Your task to perform on an android device: all mails in gmail Image 0: 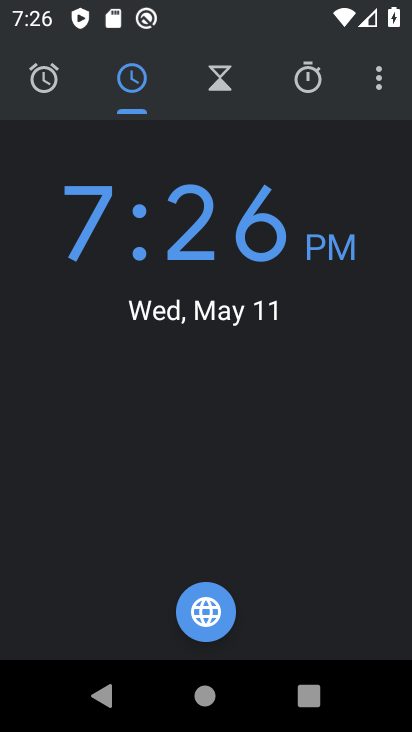
Step 0: press home button
Your task to perform on an android device: all mails in gmail Image 1: 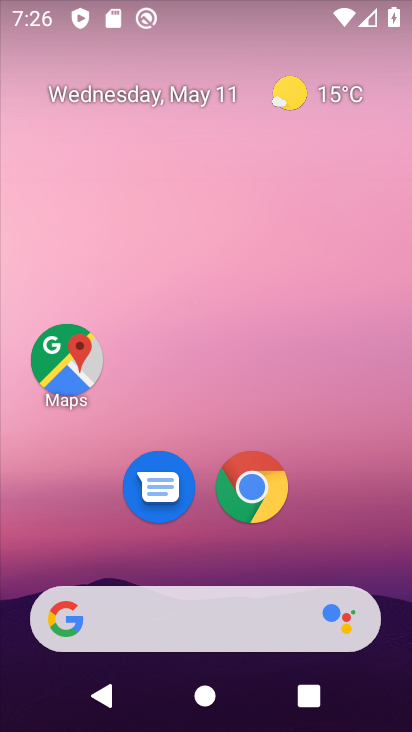
Step 1: drag from (270, 666) to (367, 117)
Your task to perform on an android device: all mails in gmail Image 2: 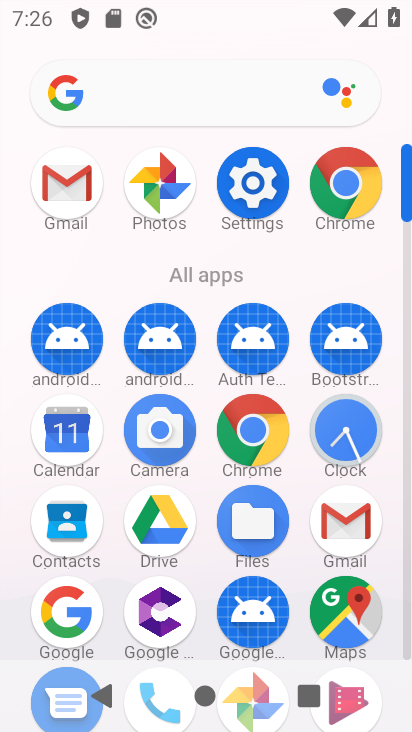
Step 2: click (39, 184)
Your task to perform on an android device: all mails in gmail Image 3: 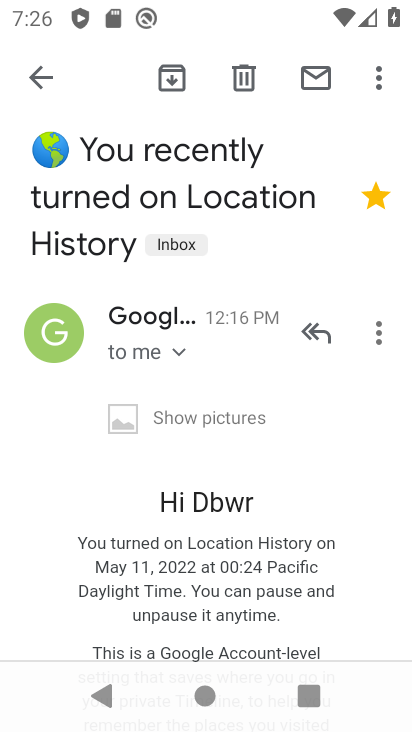
Step 3: drag from (243, 498) to (289, 265)
Your task to perform on an android device: all mails in gmail Image 4: 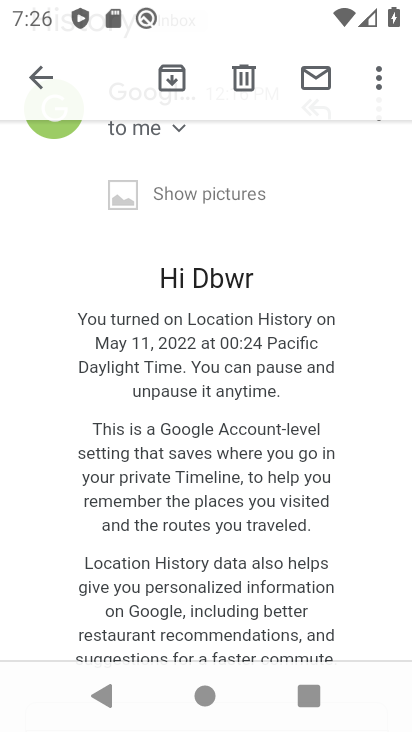
Step 4: drag from (215, 248) to (246, 415)
Your task to perform on an android device: all mails in gmail Image 5: 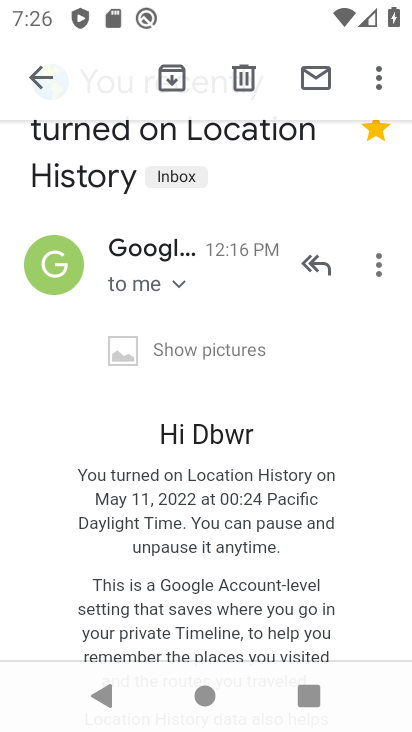
Step 5: click (40, 82)
Your task to perform on an android device: all mails in gmail Image 6: 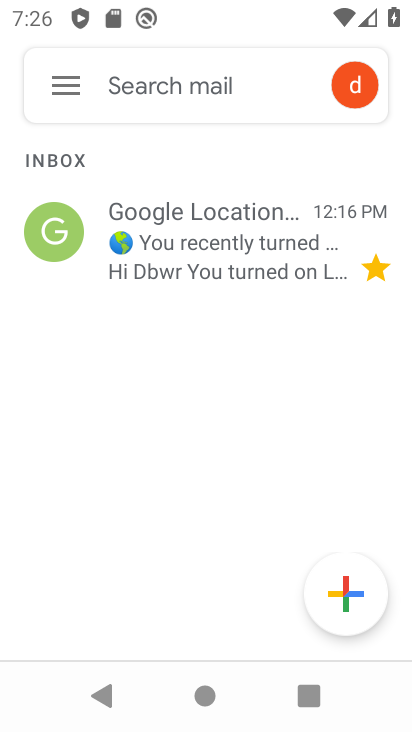
Step 6: click (55, 74)
Your task to perform on an android device: all mails in gmail Image 7: 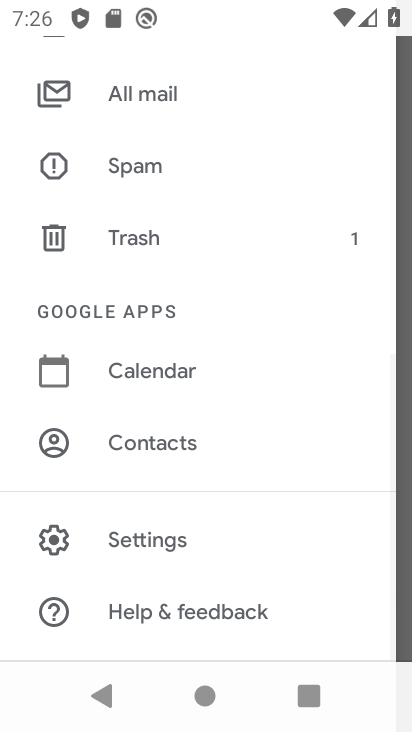
Step 7: click (167, 539)
Your task to perform on an android device: all mails in gmail Image 8: 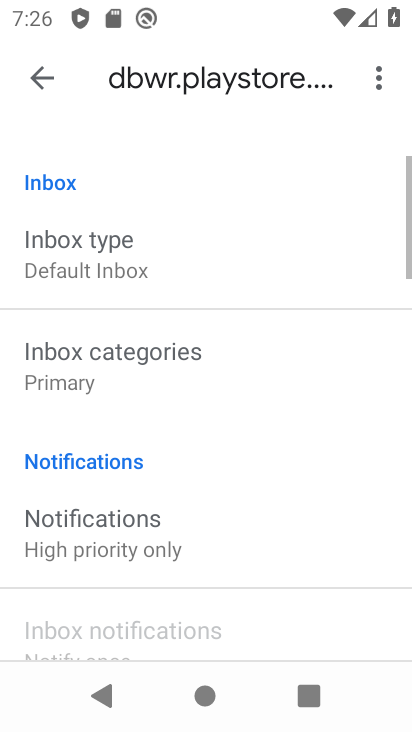
Step 8: click (38, 86)
Your task to perform on an android device: all mails in gmail Image 9: 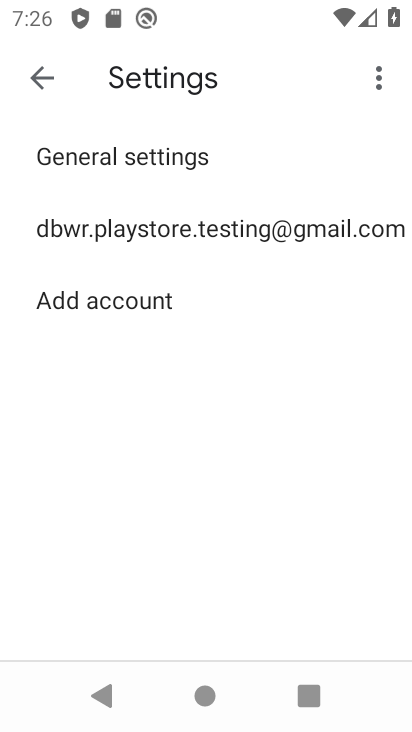
Step 9: click (38, 81)
Your task to perform on an android device: all mails in gmail Image 10: 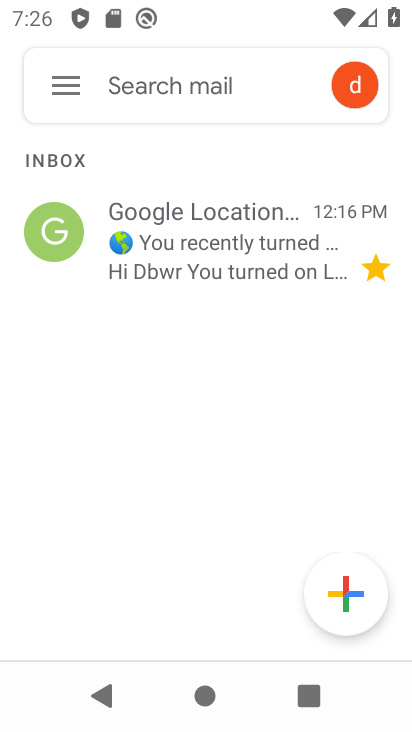
Step 10: click (34, 83)
Your task to perform on an android device: all mails in gmail Image 11: 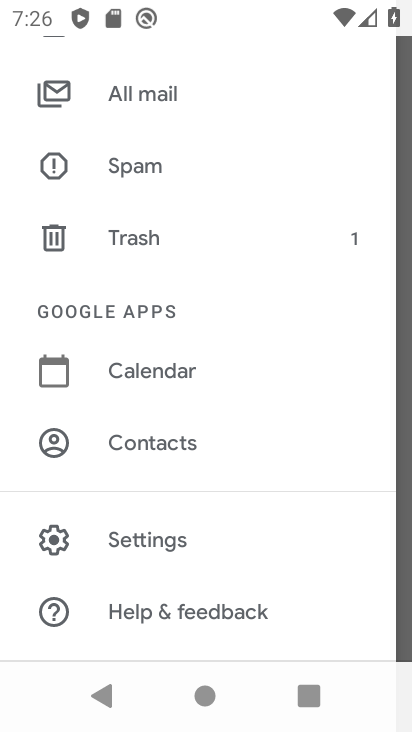
Step 11: drag from (146, 216) to (155, 322)
Your task to perform on an android device: all mails in gmail Image 12: 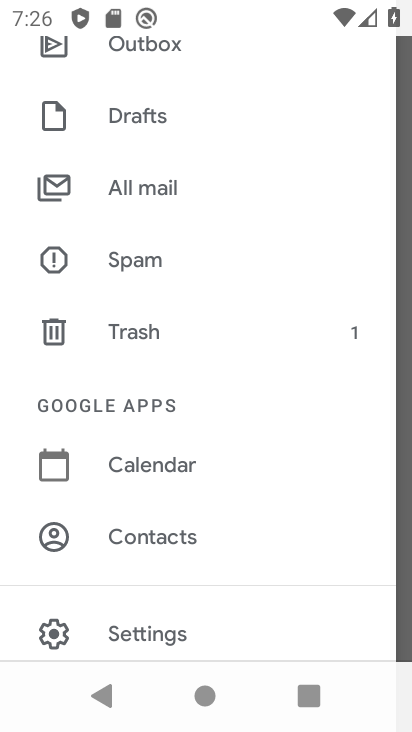
Step 12: click (131, 192)
Your task to perform on an android device: all mails in gmail Image 13: 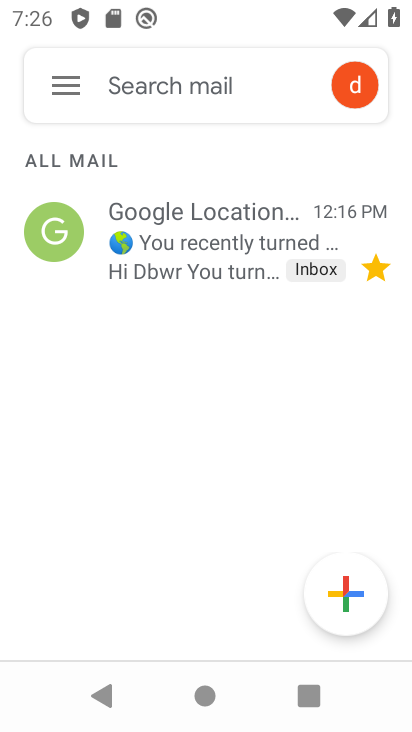
Step 13: click (65, 88)
Your task to perform on an android device: all mails in gmail Image 14: 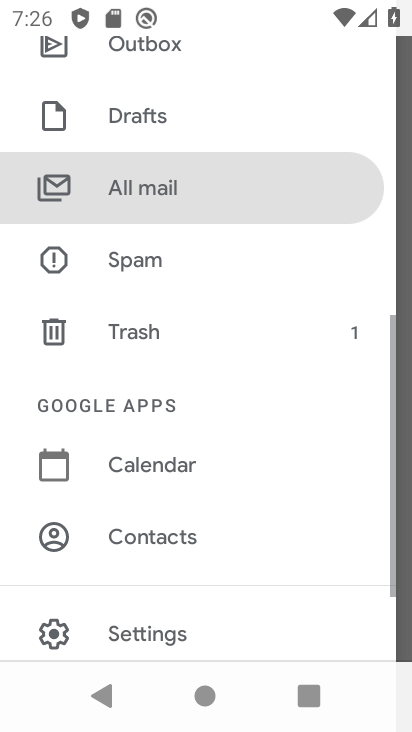
Step 14: click (176, 195)
Your task to perform on an android device: all mails in gmail Image 15: 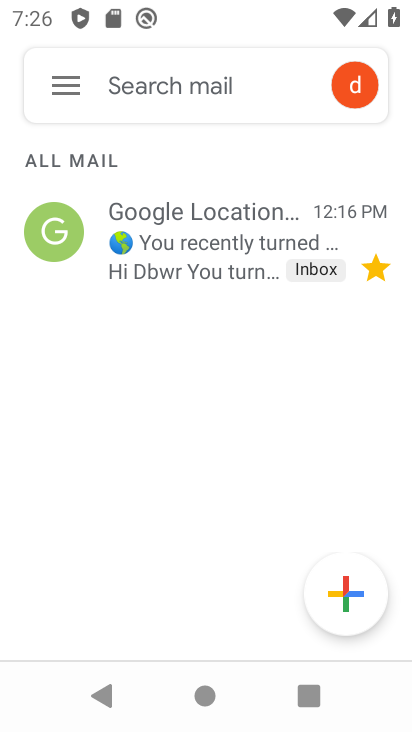
Step 15: task complete